Your task to perform on an android device: Go to Google Image 0: 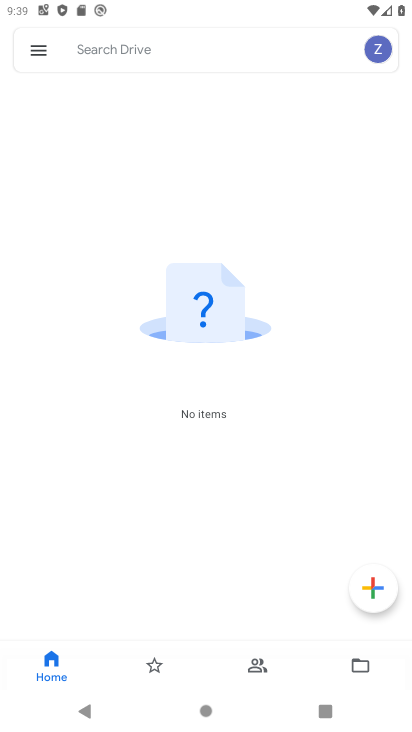
Step 0: press home button
Your task to perform on an android device: Go to Google Image 1: 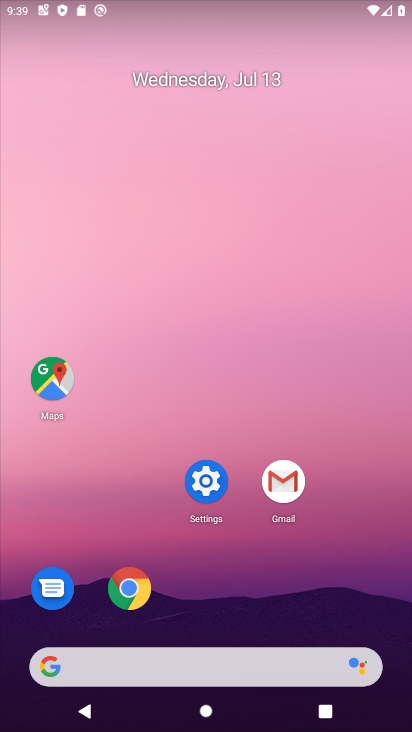
Step 1: drag from (400, 690) to (340, 117)
Your task to perform on an android device: Go to Google Image 2: 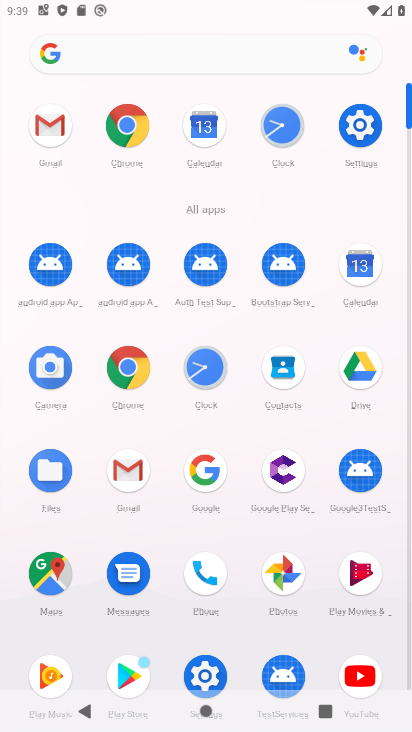
Step 2: click (211, 472)
Your task to perform on an android device: Go to Google Image 3: 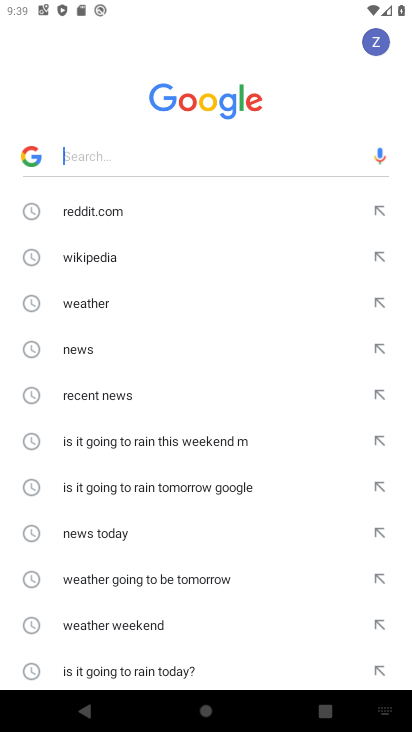
Step 3: task complete